Your task to perform on an android device: Open the web browser Image 0: 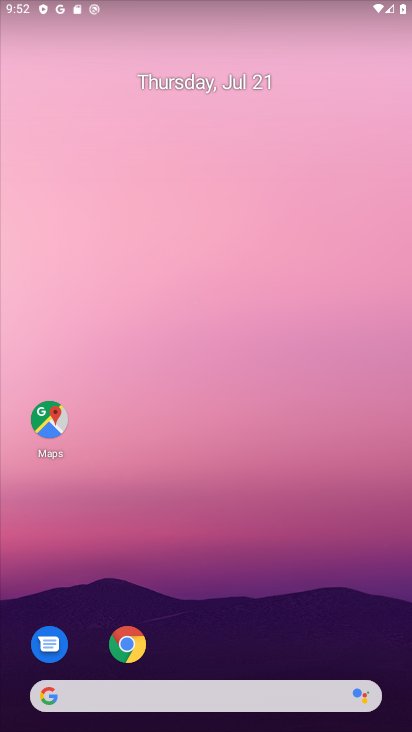
Step 0: press home button
Your task to perform on an android device: Open the web browser Image 1: 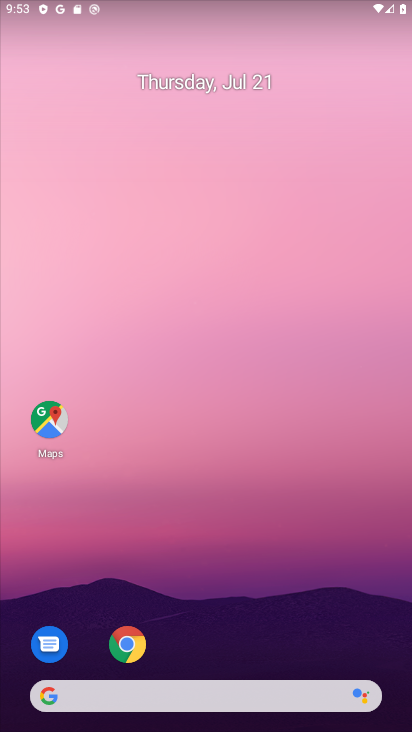
Step 1: click (124, 636)
Your task to perform on an android device: Open the web browser Image 2: 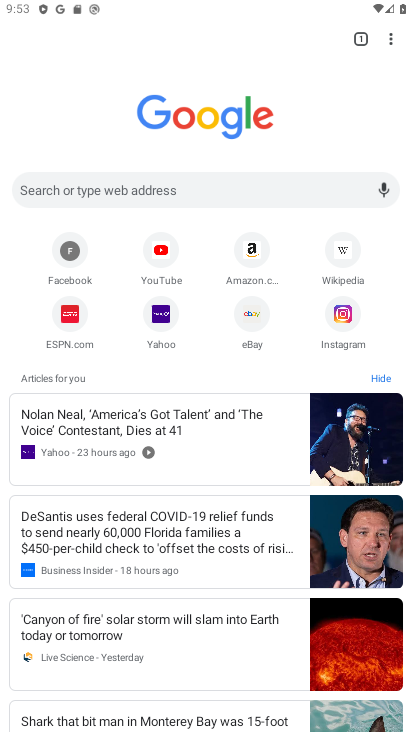
Step 2: task complete